Your task to perform on an android device: Show the shopping cart on target.com. Add "acer predator" to the cart on target.com Image 0: 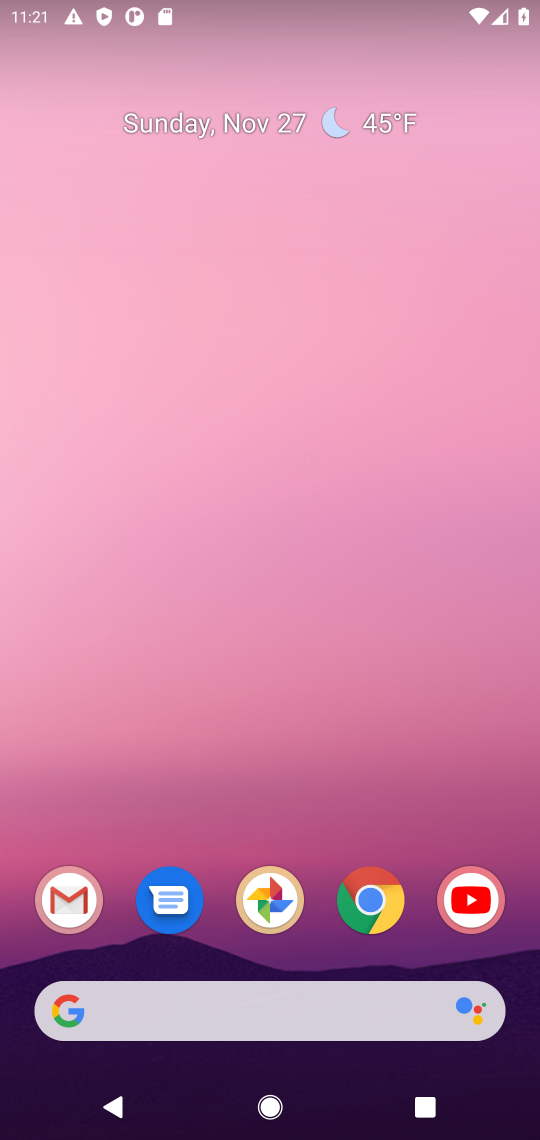
Step 0: click (378, 907)
Your task to perform on an android device: Show the shopping cart on target.com. Add "acer predator" to the cart on target.com Image 1: 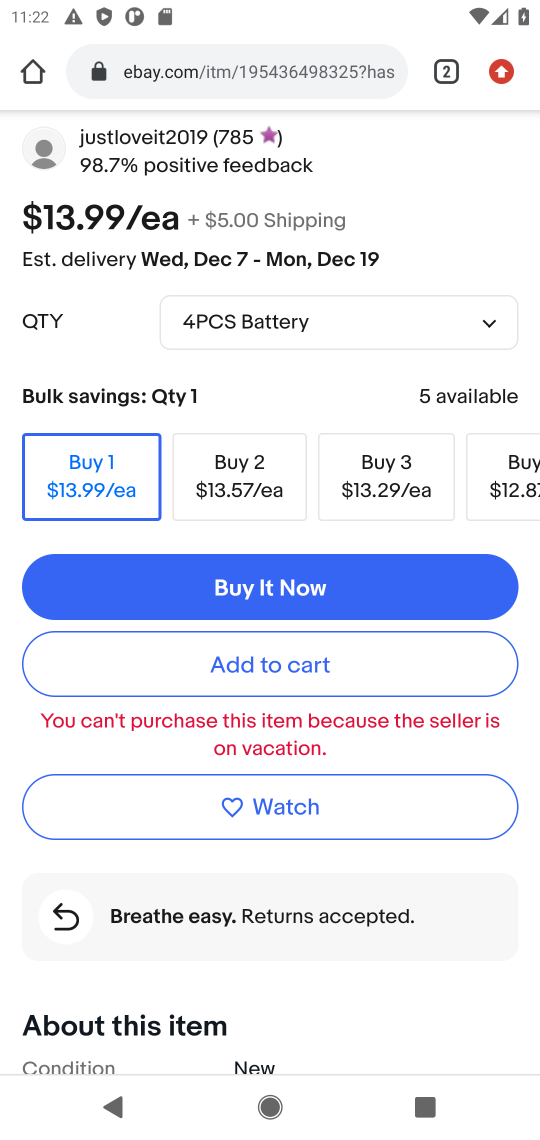
Step 1: click (190, 75)
Your task to perform on an android device: Show the shopping cart on target.com. Add "acer predator" to the cart on target.com Image 2: 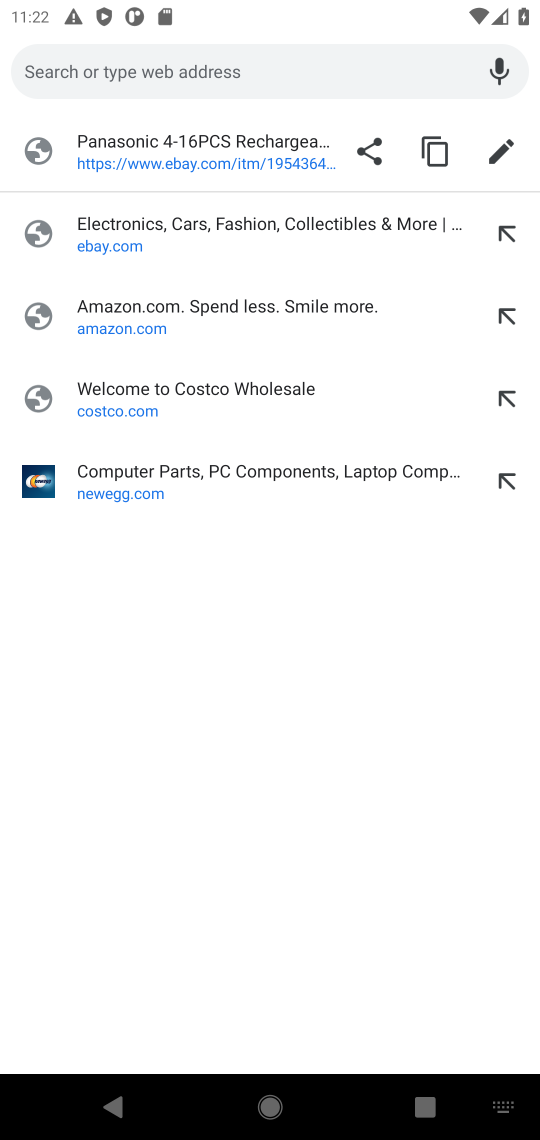
Step 2: type "target.com"
Your task to perform on an android device: Show the shopping cart on target.com. Add "acer predator" to the cart on target.com Image 3: 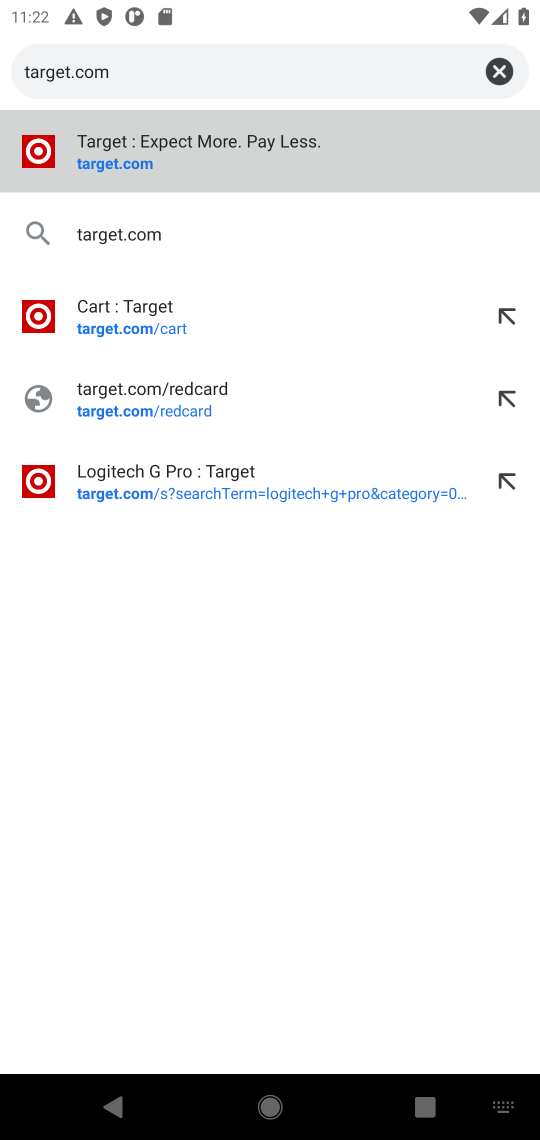
Step 3: click (96, 165)
Your task to perform on an android device: Show the shopping cart on target.com. Add "acer predator" to the cart on target.com Image 4: 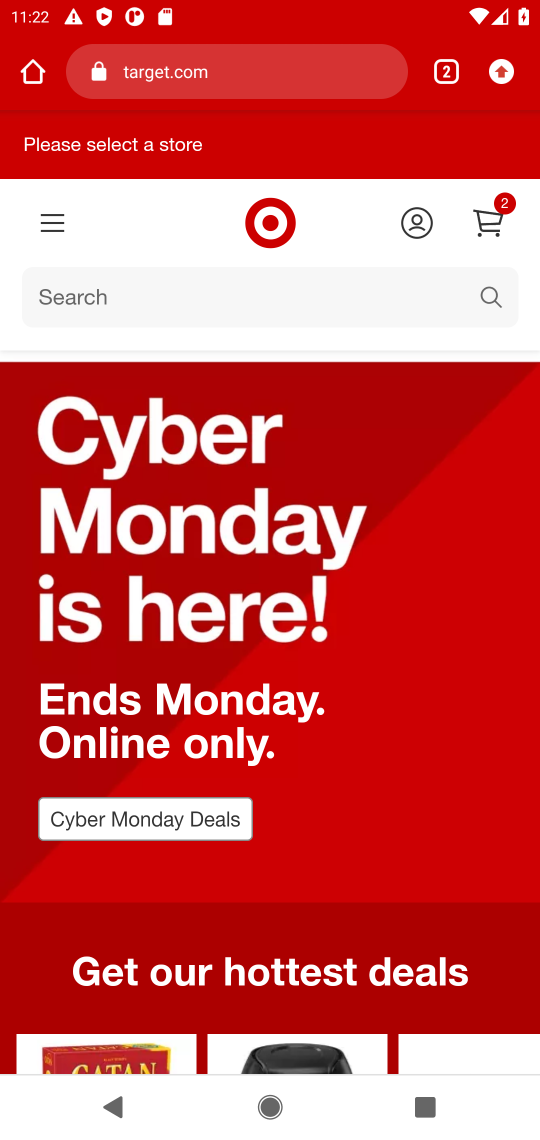
Step 4: click (494, 218)
Your task to perform on an android device: Show the shopping cart on target.com. Add "acer predator" to the cart on target.com Image 5: 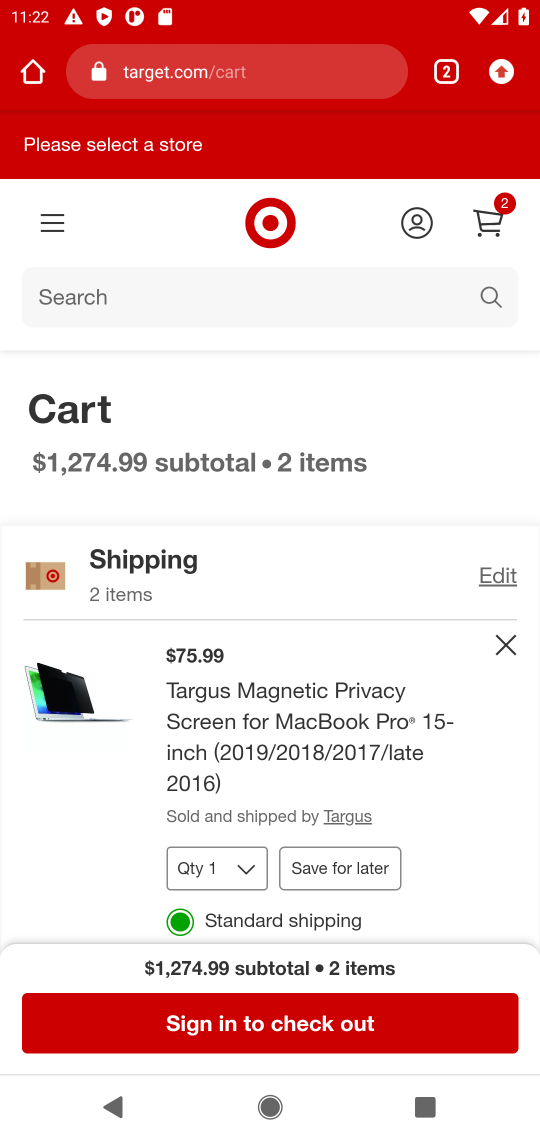
Step 5: click (92, 301)
Your task to perform on an android device: Show the shopping cart on target.com. Add "acer predator" to the cart on target.com Image 6: 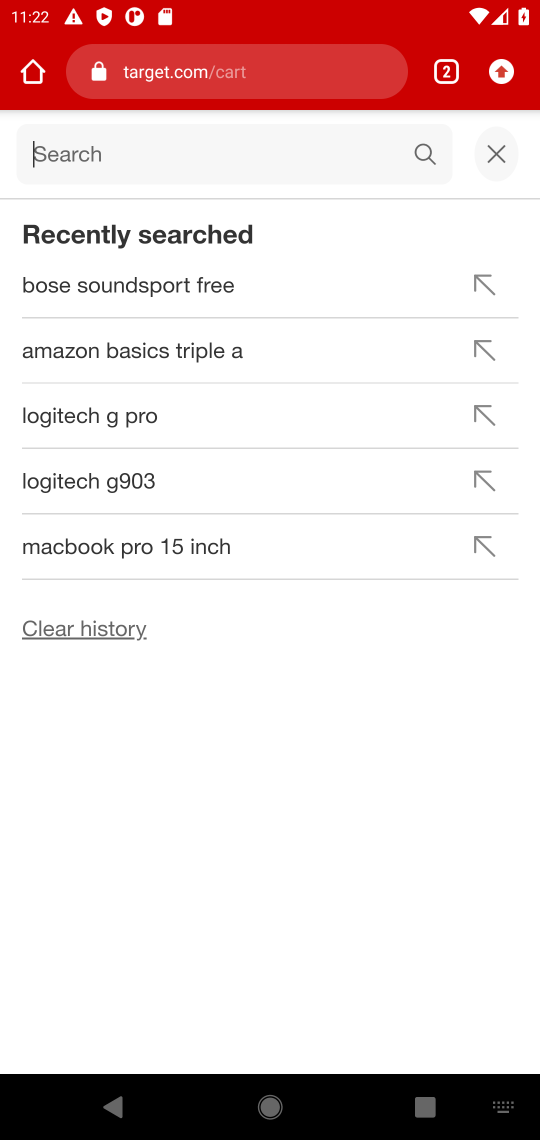
Step 6: type "acer predator"
Your task to perform on an android device: Show the shopping cart on target.com. Add "acer predator" to the cart on target.com Image 7: 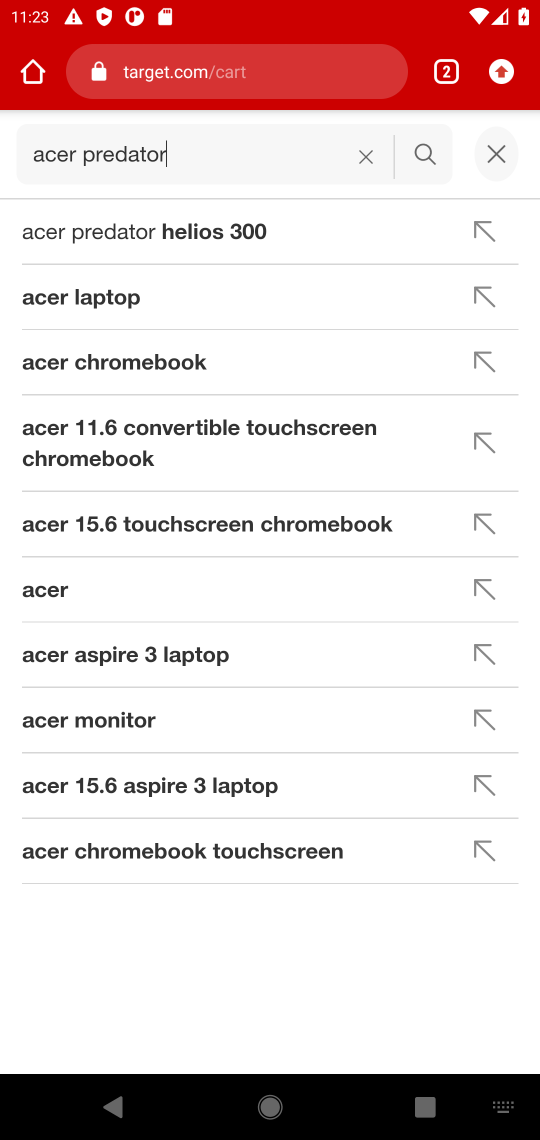
Step 7: click (415, 158)
Your task to perform on an android device: Show the shopping cart on target.com. Add "acer predator" to the cart on target.com Image 8: 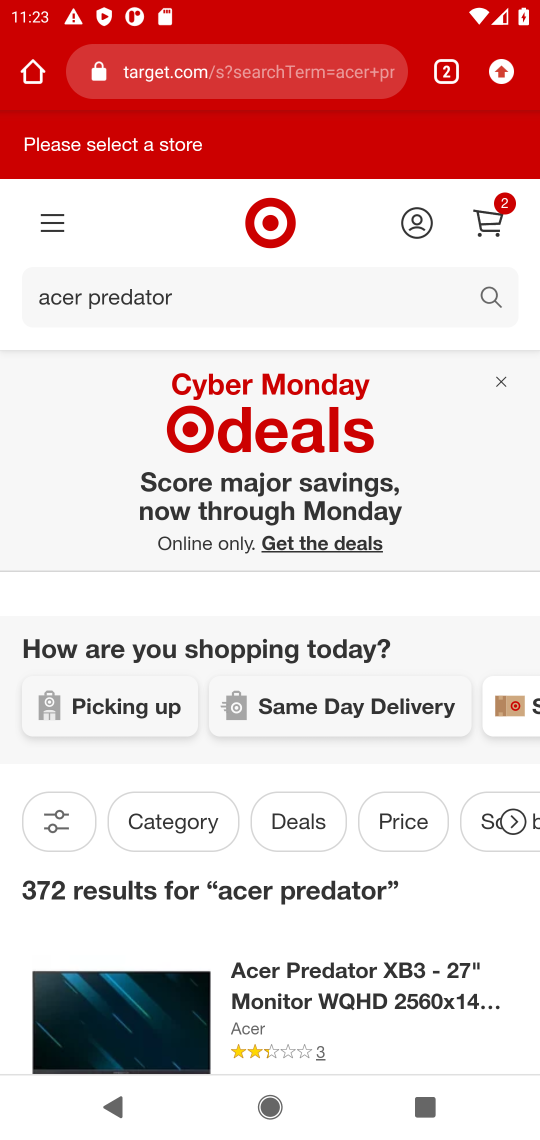
Step 8: drag from (221, 745) to (253, 401)
Your task to perform on an android device: Show the shopping cart on target.com. Add "acer predator" to the cart on target.com Image 9: 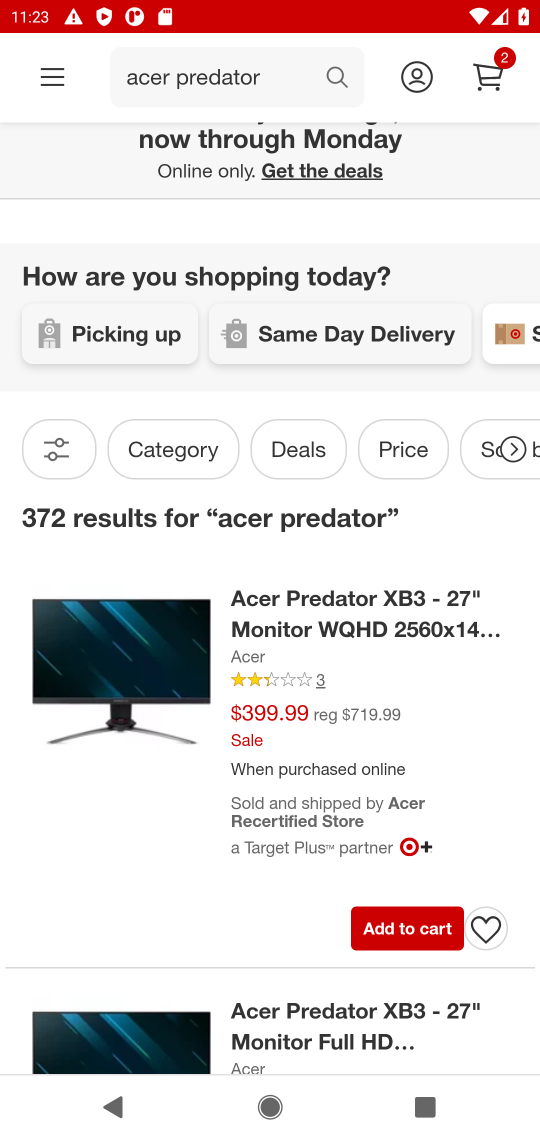
Step 9: click (397, 928)
Your task to perform on an android device: Show the shopping cart on target.com. Add "acer predator" to the cart on target.com Image 10: 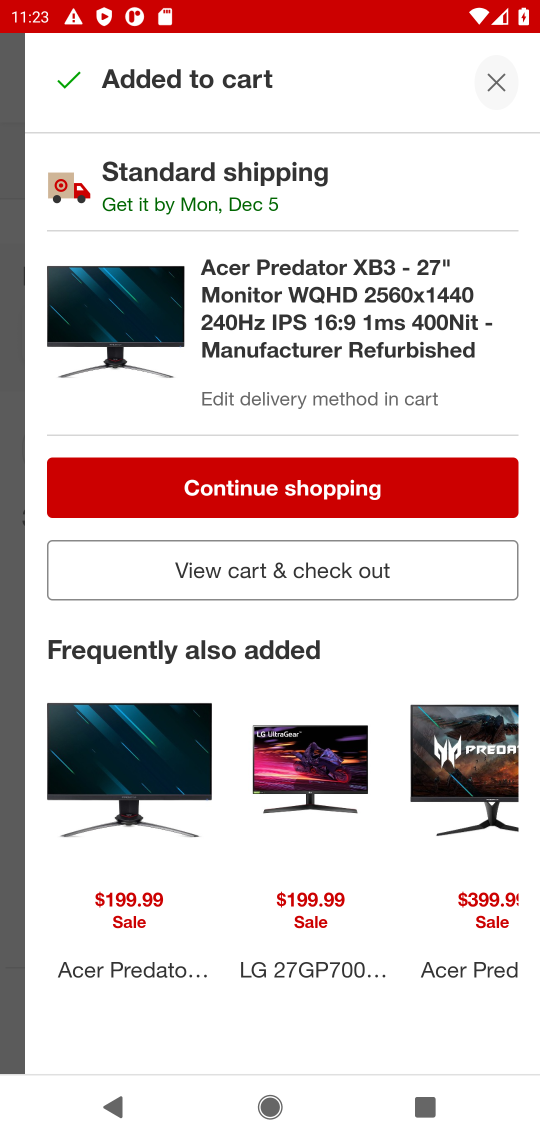
Step 10: task complete